Your task to perform on an android device: Open Chrome and go to settings Image 0: 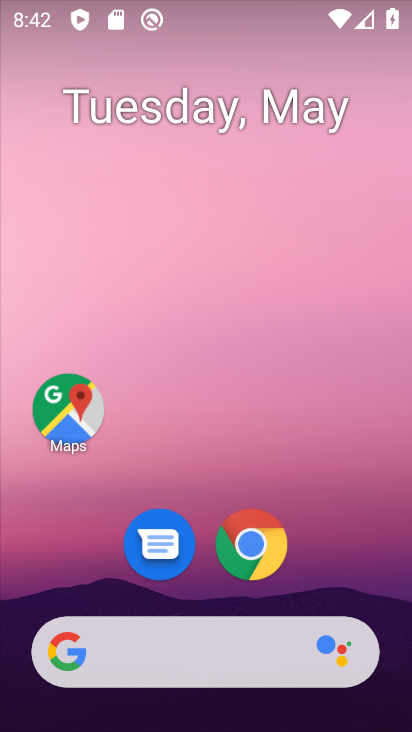
Step 0: drag from (339, 585) to (320, 196)
Your task to perform on an android device: Open Chrome and go to settings Image 1: 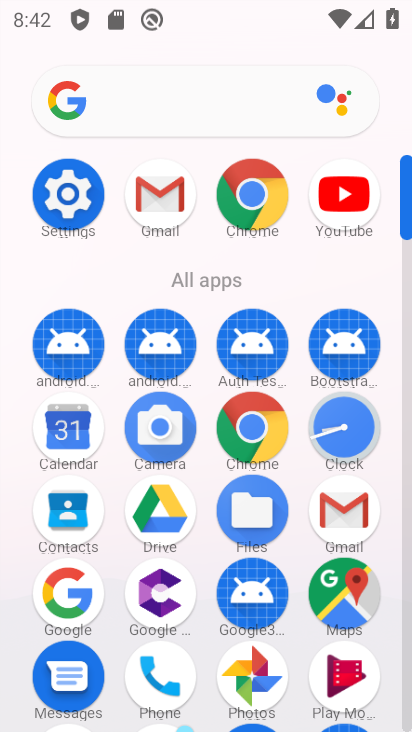
Step 1: click (67, 192)
Your task to perform on an android device: Open Chrome and go to settings Image 2: 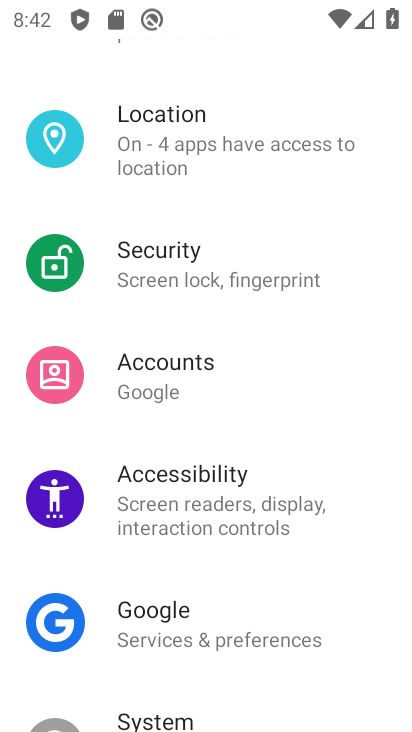
Step 2: task complete